Your task to perform on an android device: Open accessibility settings Image 0: 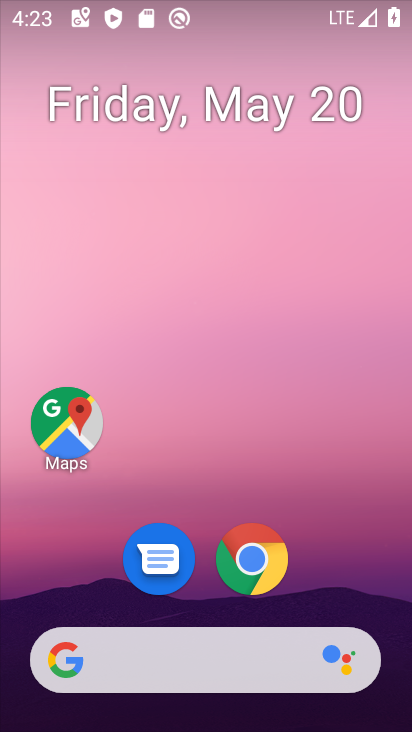
Step 0: drag from (222, 600) to (263, 182)
Your task to perform on an android device: Open accessibility settings Image 1: 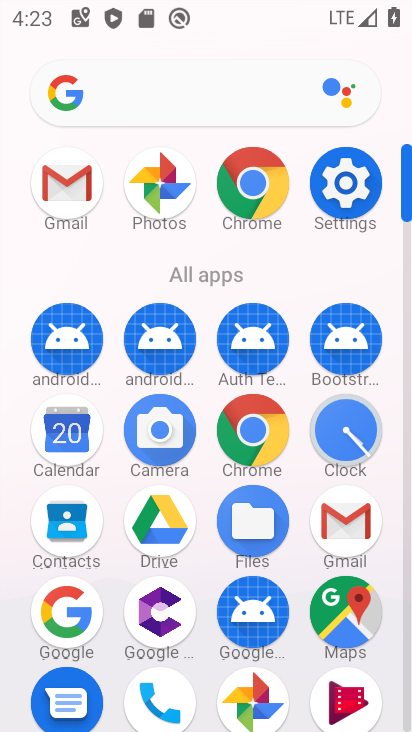
Step 1: click (355, 186)
Your task to perform on an android device: Open accessibility settings Image 2: 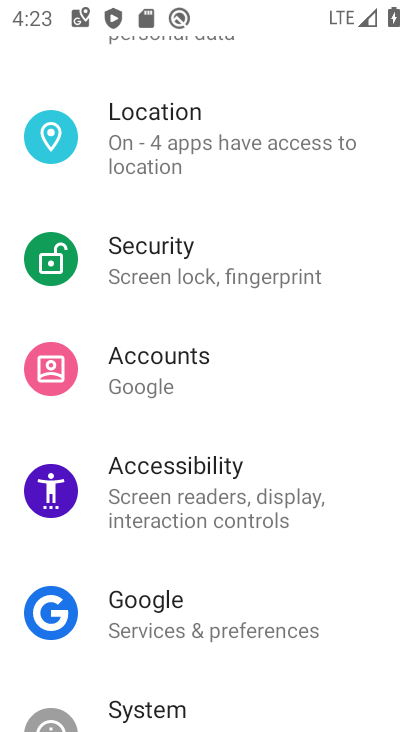
Step 2: click (194, 506)
Your task to perform on an android device: Open accessibility settings Image 3: 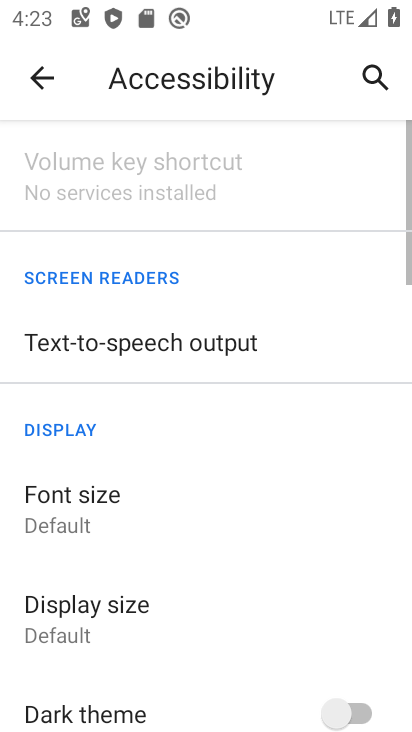
Step 3: task complete